Your task to perform on an android device: check google app version Image 0: 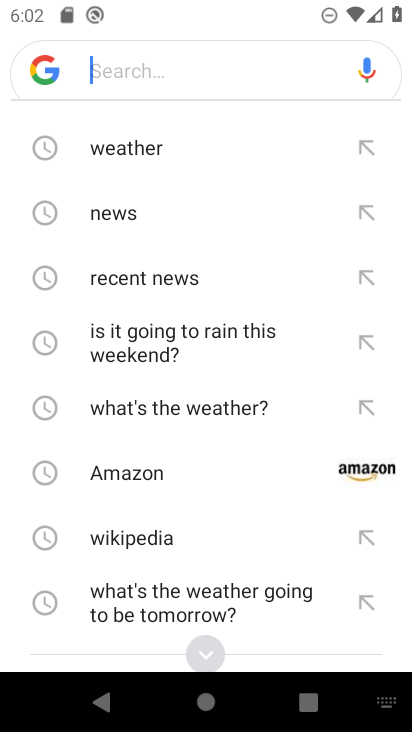
Step 0: press home button
Your task to perform on an android device: check google app version Image 1: 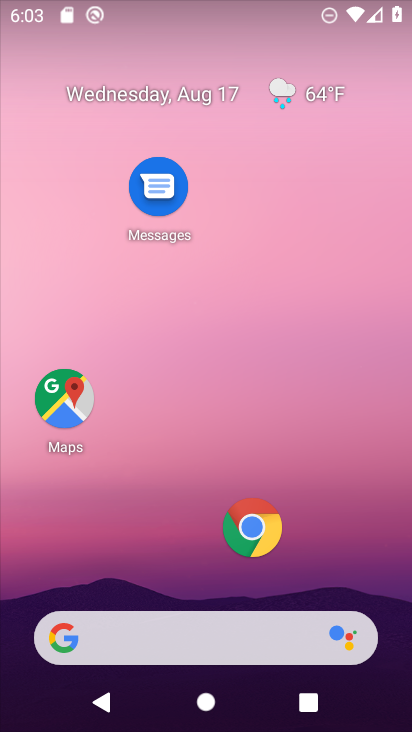
Step 1: drag from (180, 587) to (186, 248)
Your task to perform on an android device: check google app version Image 2: 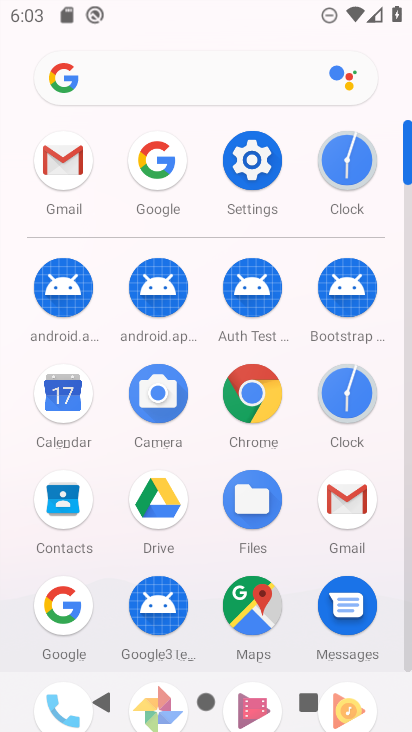
Step 2: click (76, 608)
Your task to perform on an android device: check google app version Image 3: 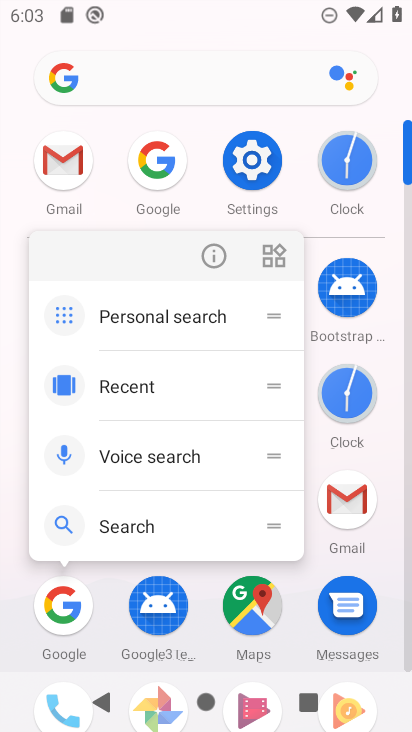
Step 3: click (218, 253)
Your task to perform on an android device: check google app version Image 4: 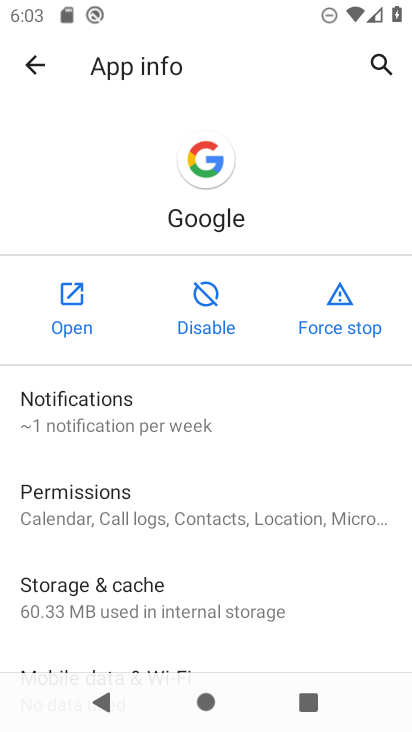
Step 4: drag from (191, 600) to (176, 301)
Your task to perform on an android device: check google app version Image 5: 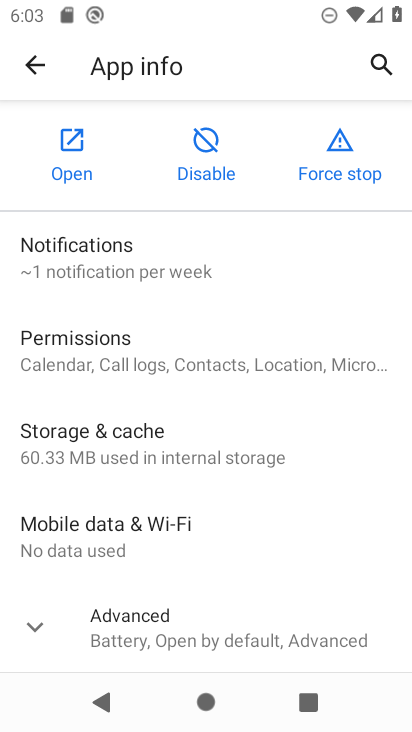
Step 5: drag from (103, 627) to (106, 286)
Your task to perform on an android device: check google app version Image 6: 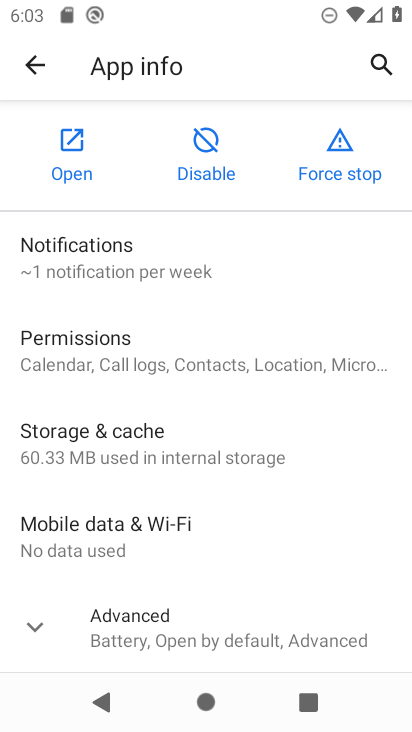
Step 6: click (137, 634)
Your task to perform on an android device: check google app version Image 7: 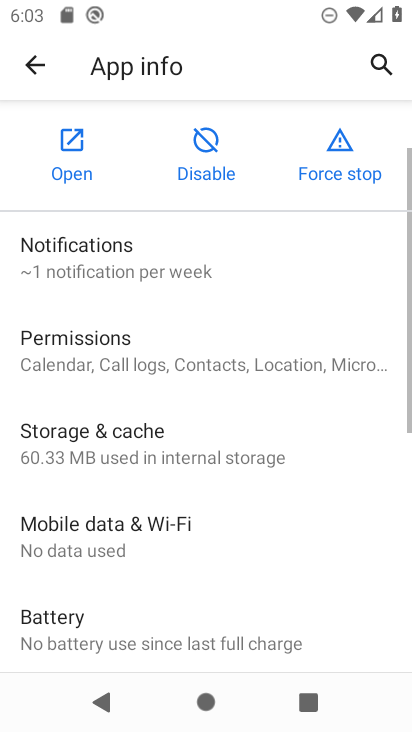
Step 7: task complete